Your task to perform on an android device: What's the weather today? Image 0: 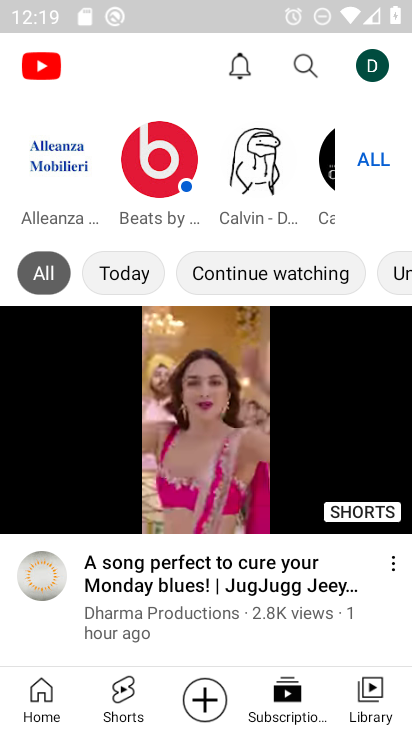
Step 0: press home button
Your task to perform on an android device: What's the weather today? Image 1: 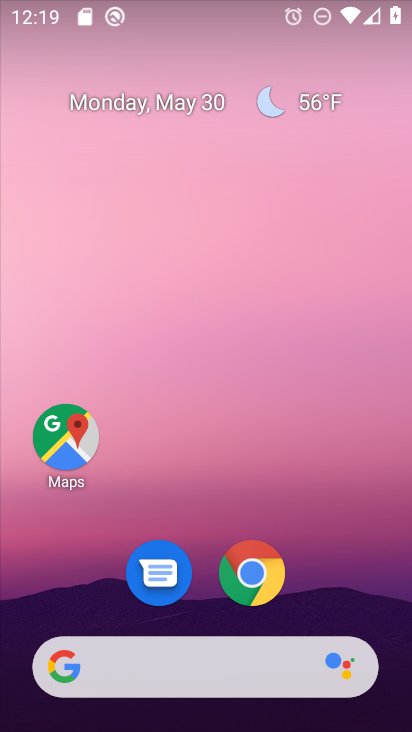
Step 1: drag from (40, 359) to (408, 300)
Your task to perform on an android device: What's the weather today? Image 2: 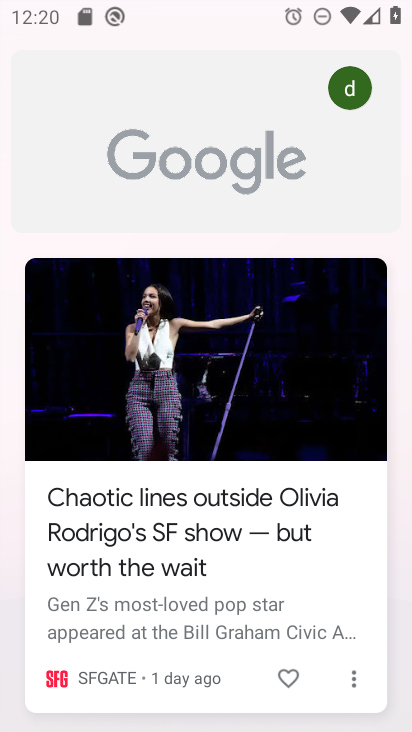
Step 2: press home button
Your task to perform on an android device: What's the weather today? Image 3: 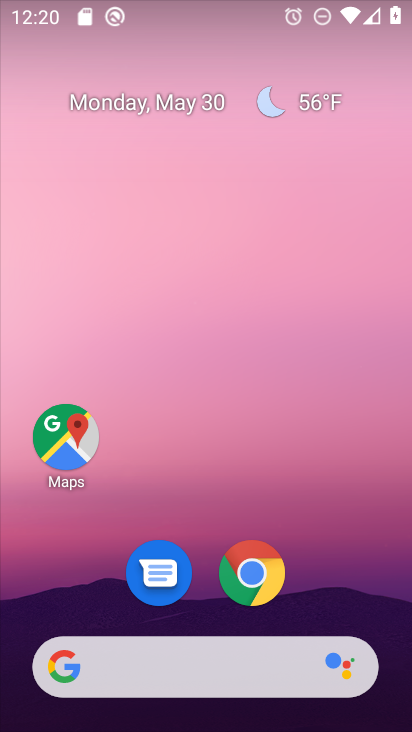
Step 3: drag from (230, 654) to (271, 1)
Your task to perform on an android device: What's the weather today? Image 4: 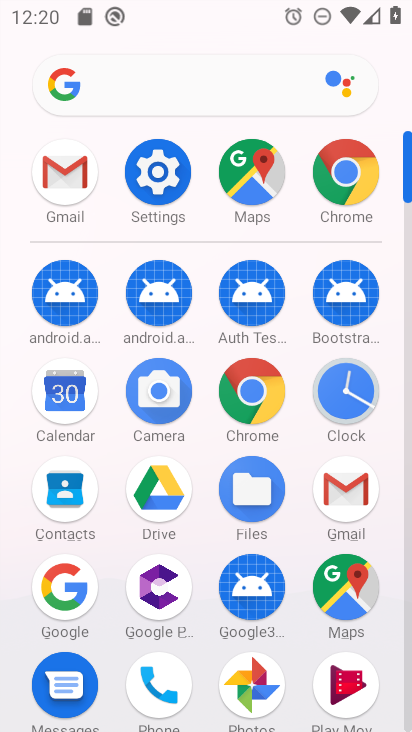
Step 4: click (70, 584)
Your task to perform on an android device: What's the weather today? Image 5: 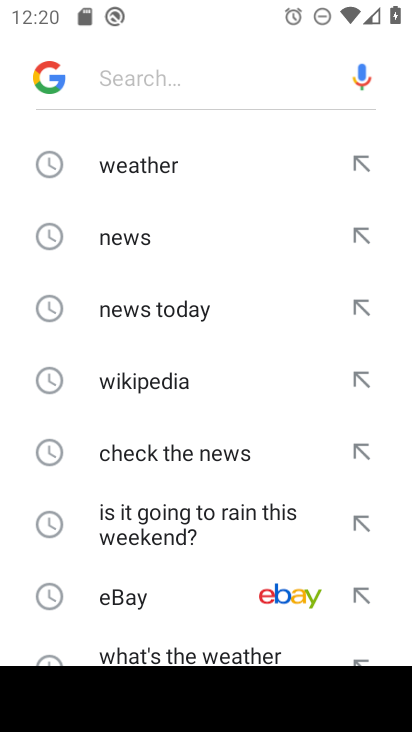
Step 5: click (185, 172)
Your task to perform on an android device: What's the weather today? Image 6: 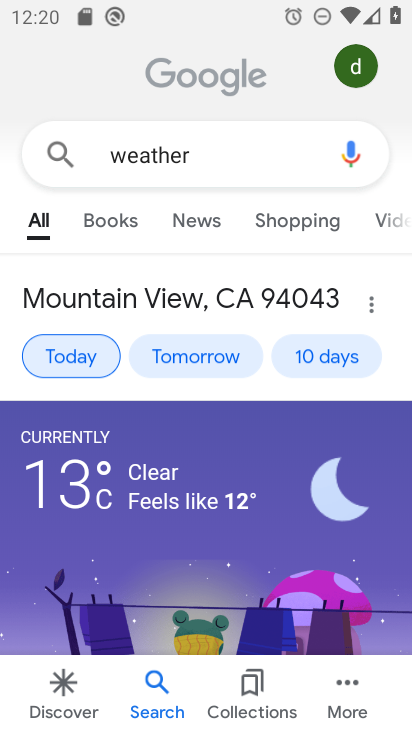
Step 6: task complete